Your task to perform on an android device: turn on location history Image 0: 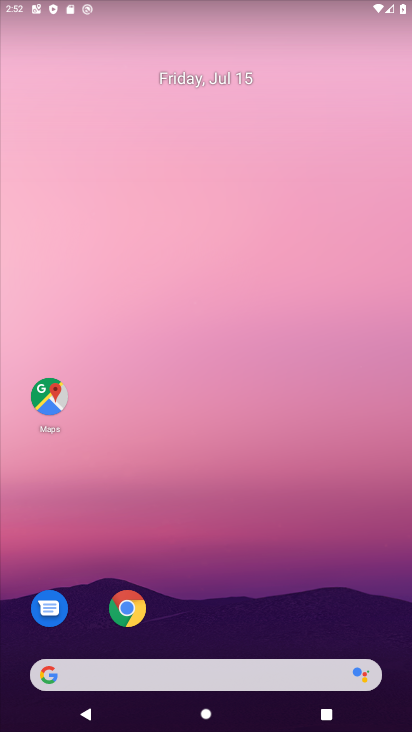
Step 0: drag from (205, 569) to (272, 177)
Your task to perform on an android device: turn on location history Image 1: 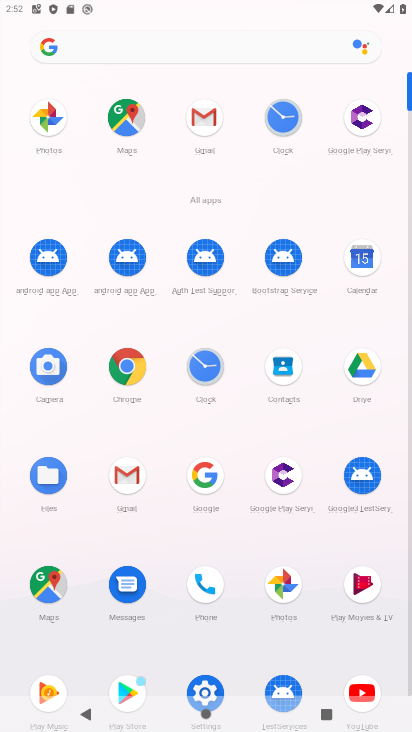
Step 1: click (197, 683)
Your task to perform on an android device: turn on location history Image 2: 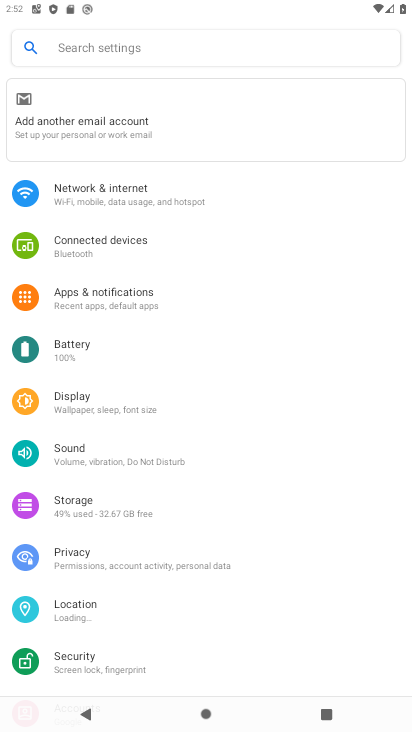
Step 2: drag from (81, 625) to (151, 382)
Your task to perform on an android device: turn on location history Image 3: 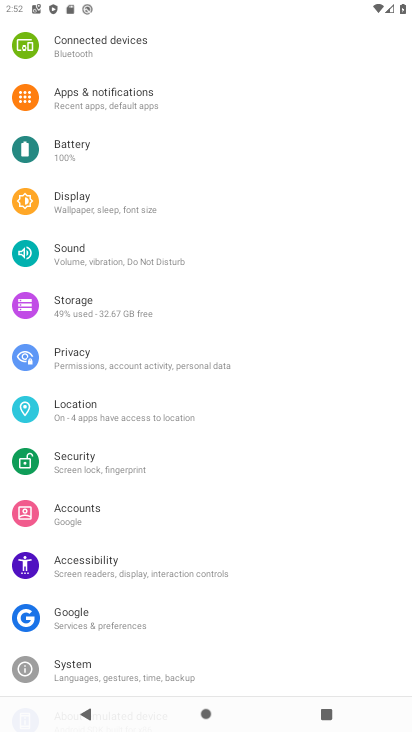
Step 3: click (111, 404)
Your task to perform on an android device: turn on location history Image 4: 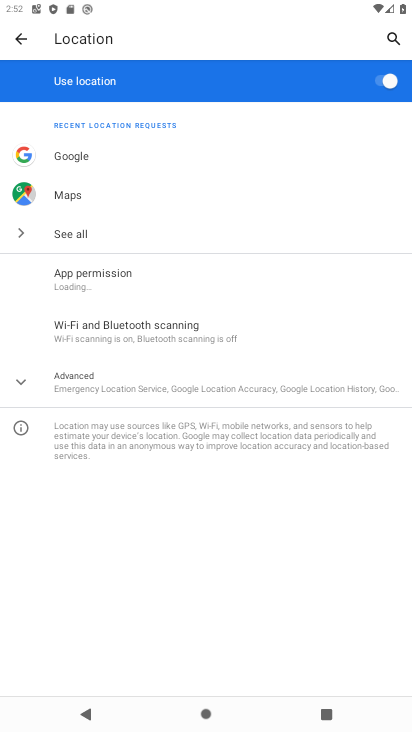
Step 4: click (119, 398)
Your task to perform on an android device: turn on location history Image 5: 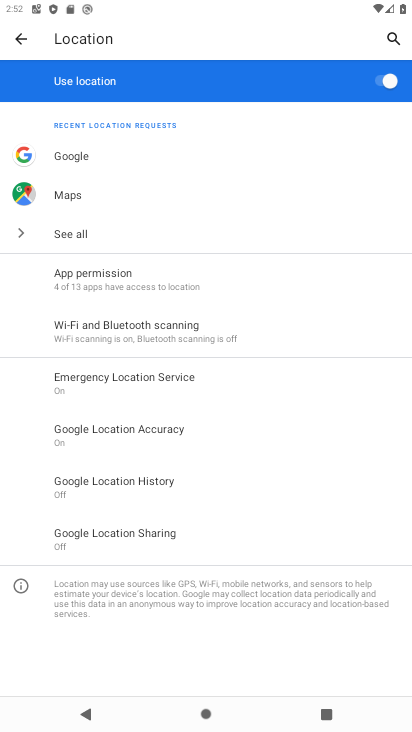
Step 5: click (162, 493)
Your task to perform on an android device: turn on location history Image 6: 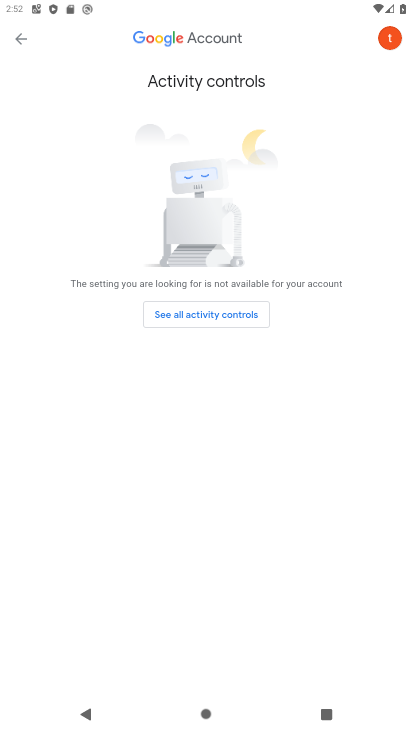
Step 6: task complete